Your task to perform on an android device: check storage Image 0: 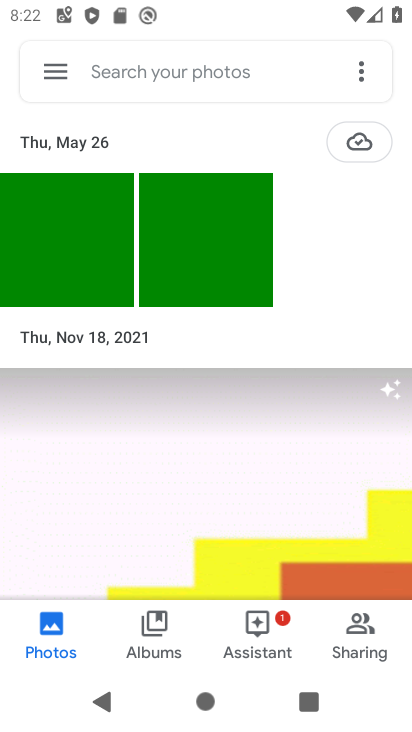
Step 0: press home button
Your task to perform on an android device: check storage Image 1: 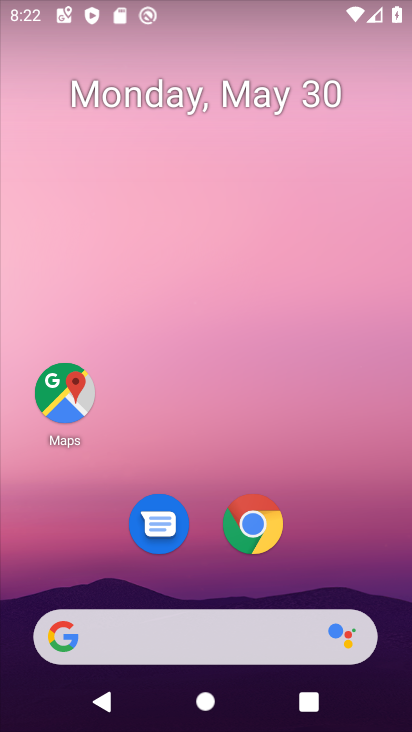
Step 1: drag from (235, 433) to (313, 12)
Your task to perform on an android device: check storage Image 2: 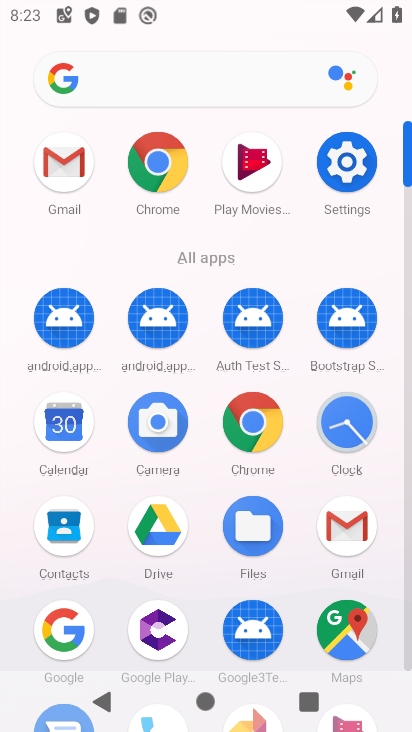
Step 2: click (351, 154)
Your task to perform on an android device: check storage Image 3: 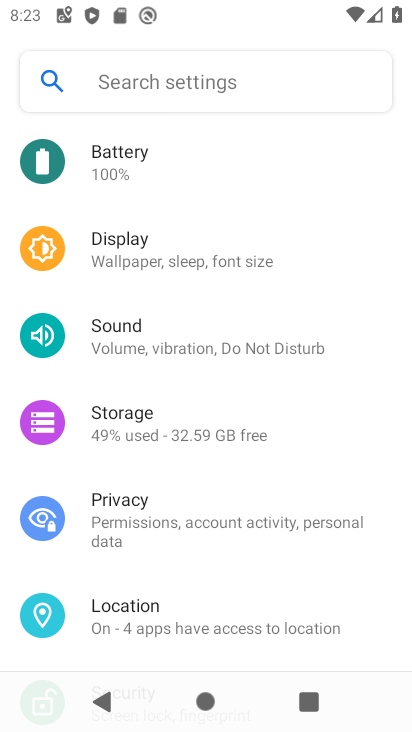
Step 3: click (168, 419)
Your task to perform on an android device: check storage Image 4: 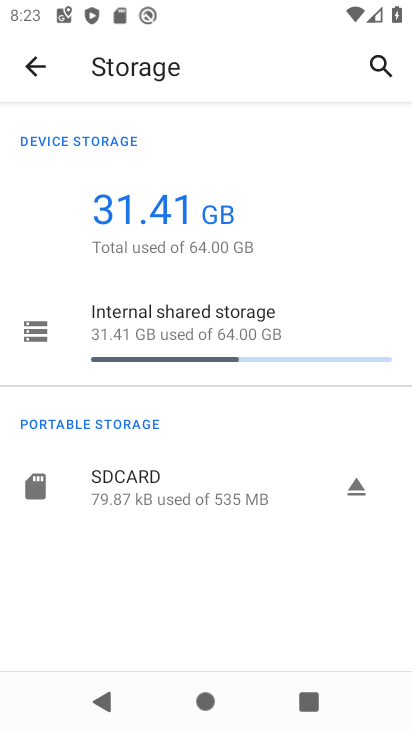
Step 4: task complete